Your task to perform on an android device: toggle data saver in the chrome app Image 0: 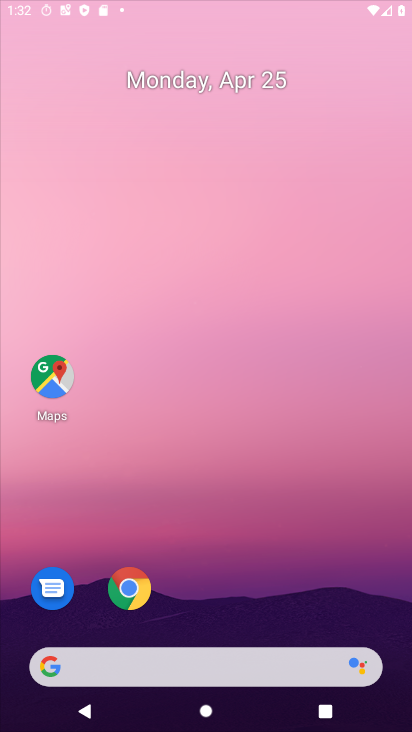
Step 0: click (296, 288)
Your task to perform on an android device: toggle data saver in the chrome app Image 1: 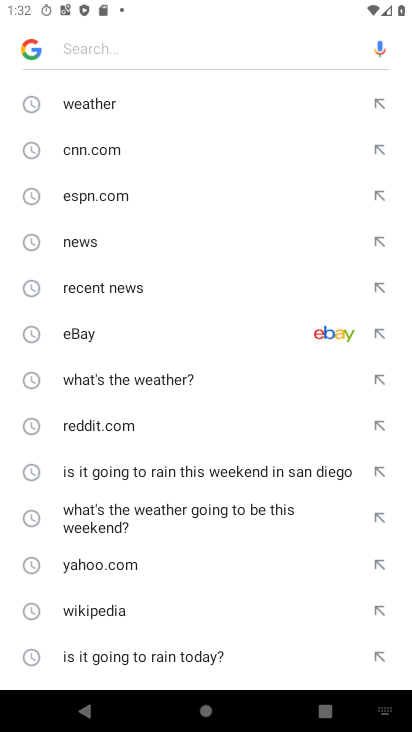
Step 1: press home button
Your task to perform on an android device: toggle data saver in the chrome app Image 2: 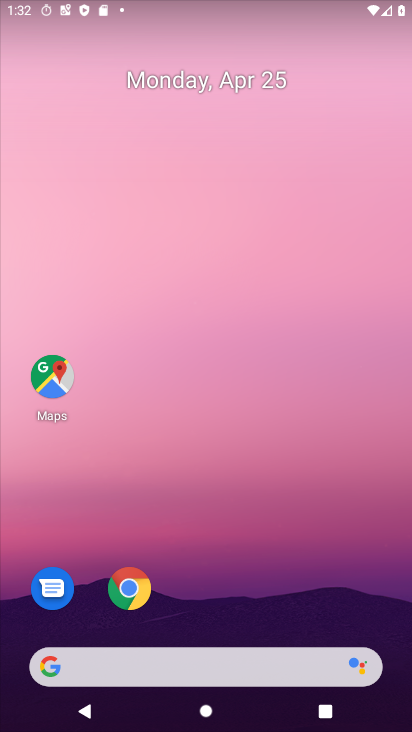
Step 2: click (123, 596)
Your task to perform on an android device: toggle data saver in the chrome app Image 3: 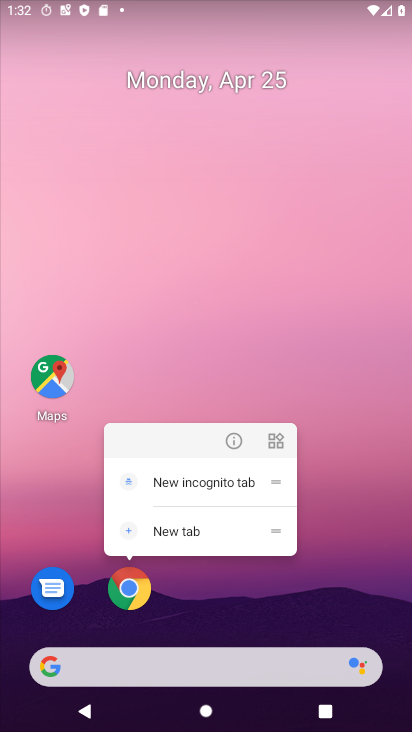
Step 3: click (229, 450)
Your task to perform on an android device: toggle data saver in the chrome app Image 4: 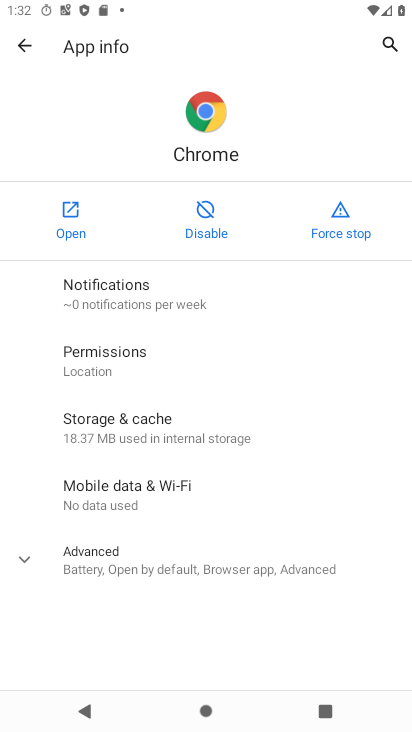
Step 4: click (73, 226)
Your task to perform on an android device: toggle data saver in the chrome app Image 5: 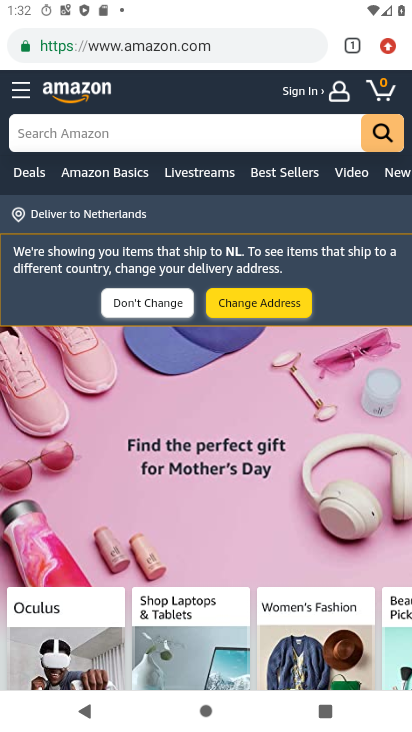
Step 5: click (384, 48)
Your task to perform on an android device: toggle data saver in the chrome app Image 6: 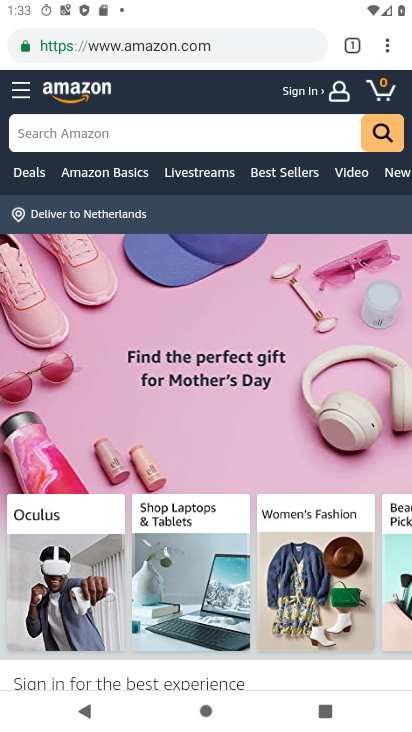
Step 6: click (386, 53)
Your task to perform on an android device: toggle data saver in the chrome app Image 7: 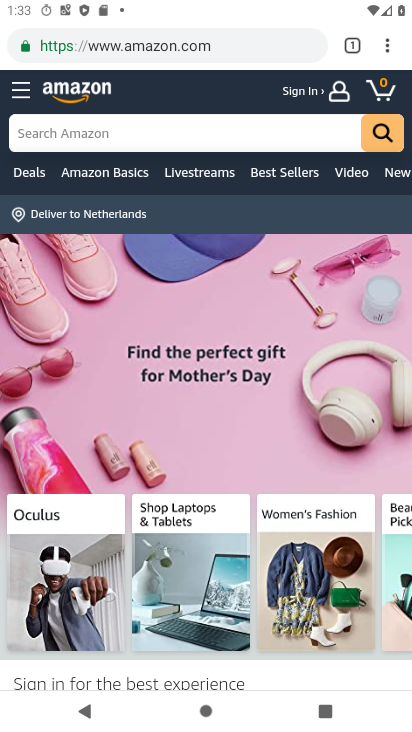
Step 7: click (387, 42)
Your task to perform on an android device: toggle data saver in the chrome app Image 8: 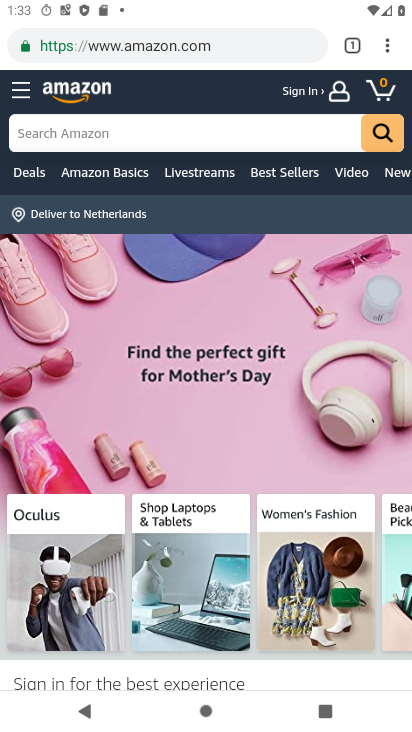
Step 8: click (386, 45)
Your task to perform on an android device: toggle data saver in the chrome app Image 9: 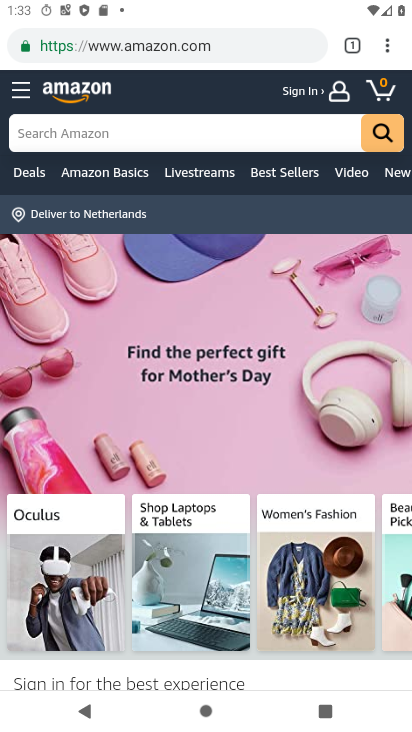
Step 9: click (387, 47)
Your task to perform on an android device: toggle data saver in the chrome app Image 10: 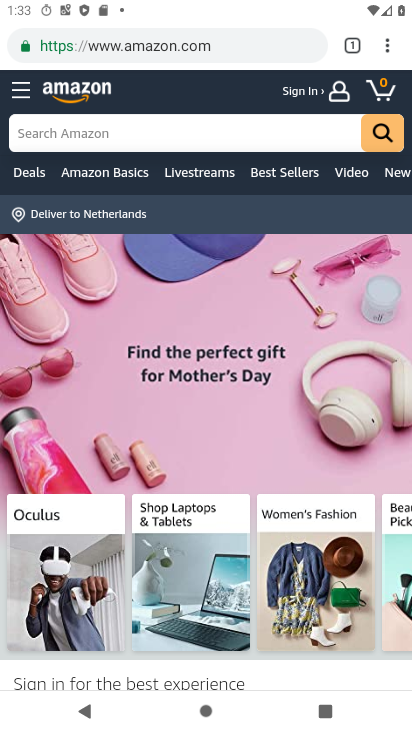
Step 10: click (387, 47)
Your task to perform on an android device: toggle data saver in the chrome app Image 11: 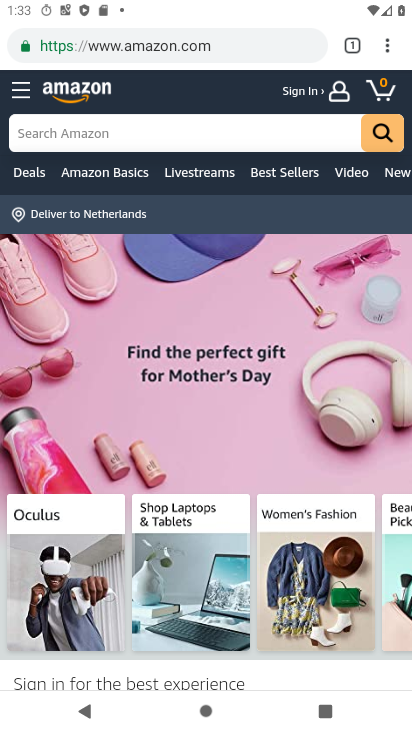
Step 11: click (386, 46)
Your task to perform on an android device: toggle data saver in the chrome app Image 12: 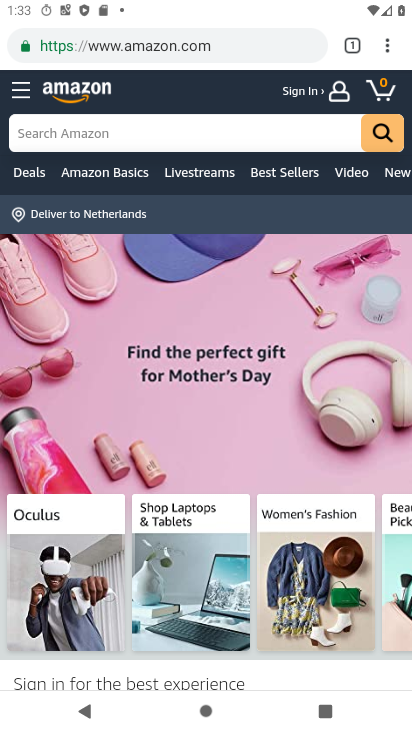
Step 12: click (386, 50)
Your task to perform on an android device: toggle data saver in the chrome app Image 13: 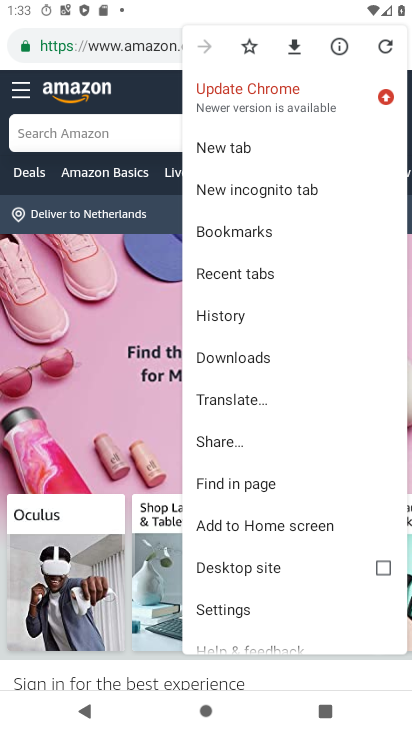
Step 13: click (251, 609)
Your task to perform on an android device: toggle data saver in the chrome app Image 14: 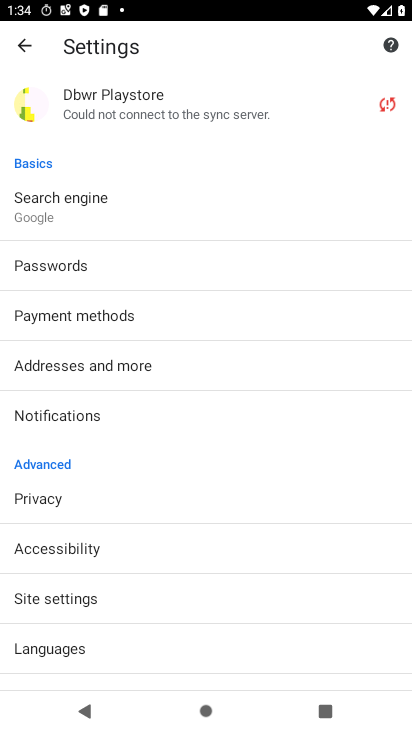
Step 14: drag from (92, 606) to (157, 397)
Your task to perform on an android device: toggle data saver in the chrome app Image 15: 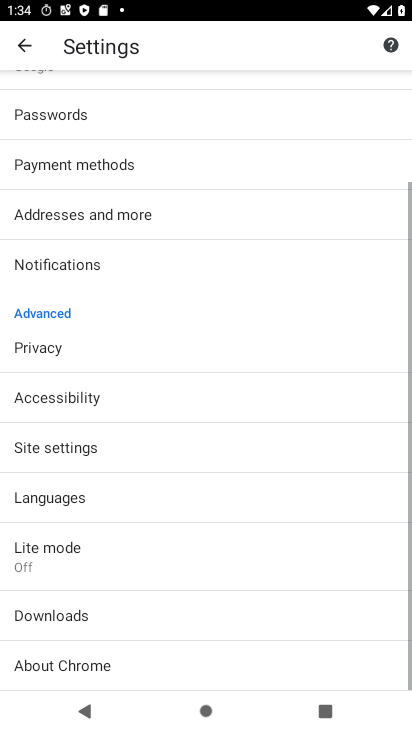
Step 15: click (128, 556)
Your task to perform on an android device: toggle data saver in the chrome app Image 16: 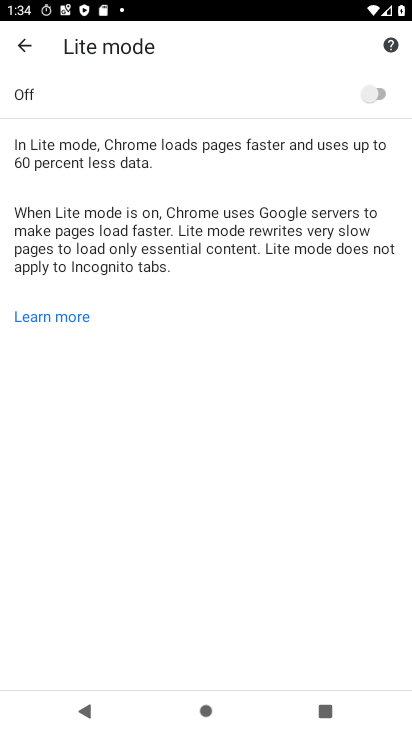
Step 16: click (370, 107)
Your task to perform on an android device: toggle data saver in the chrome app Image 17: 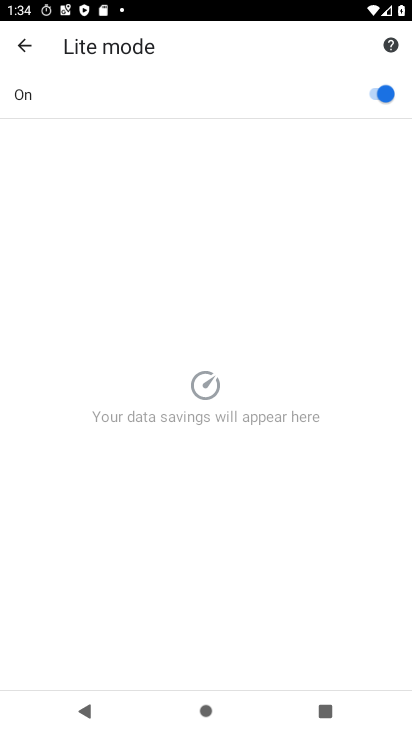
Step 17: task complete